Your task to perform on an android device: View the shopping cart on ebay.com. Search for dell alienware on ebay.com, select the first entry, add it to the cart, then select checkout. Image 0: 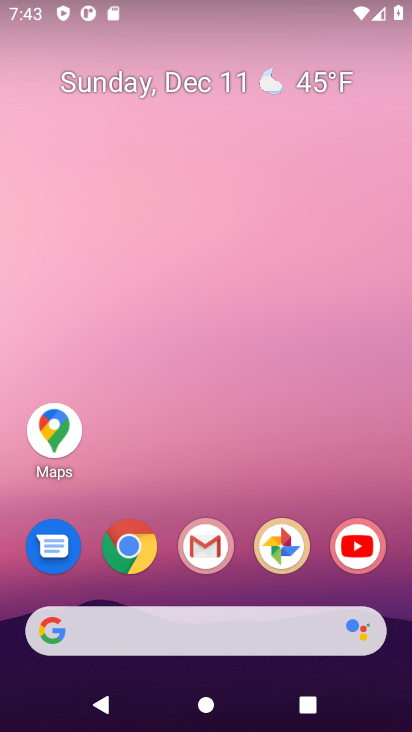
Step 0: click (126, 549)
Your task to perform on an android device: View the shopping cart on ebay.com. Search for dell alienware on ebay.com, select the first entry, add it to the cart, then select checkout. Image 1: 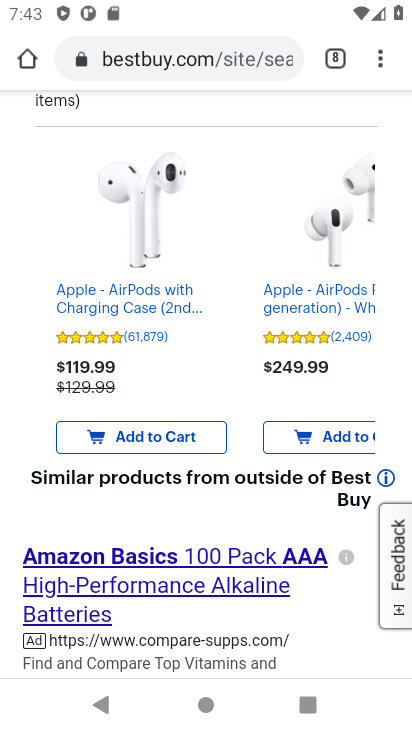
Step 1: click (180, 49)
Your task to perform on an android device: View the shopping cart on ebay.com. Search for dell alienware on ebay.com, select the first entry, add it to the cart, then select checkout. Image 2: 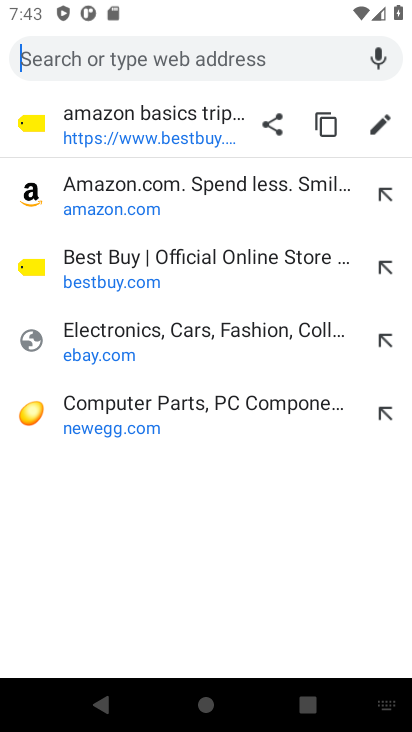
Step 2: click (102, 346)
Your task to perform on an android device: View the shopping cart on ebay.com. Search for dell alienware on ebay.com, select the first entry, add it to the cart, then select checkout. Image 3: 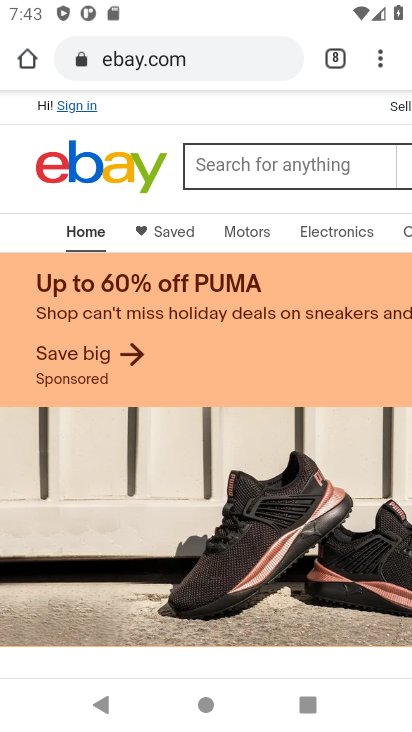
Step 3: drag from (301, 135) to (93, 126)
Your task to perform on an android device: View the shopping cart on ebay.com. Search for dell alienware on ebay.com, select the first entry, add it to the cart, then select checkout. Image 4: 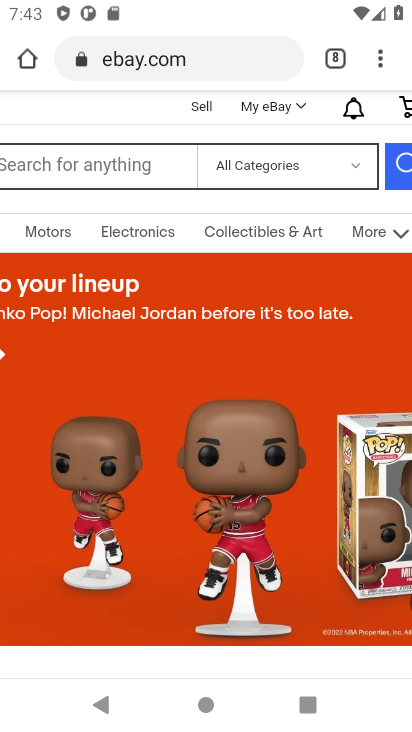
Step 4: click (410, 107)
Your task to perform on an android device: View the shopping cart on ebay.com. Search for dell alienware on ebay.com, select the first entry, add it to the cart, then select checkout. Image 5: 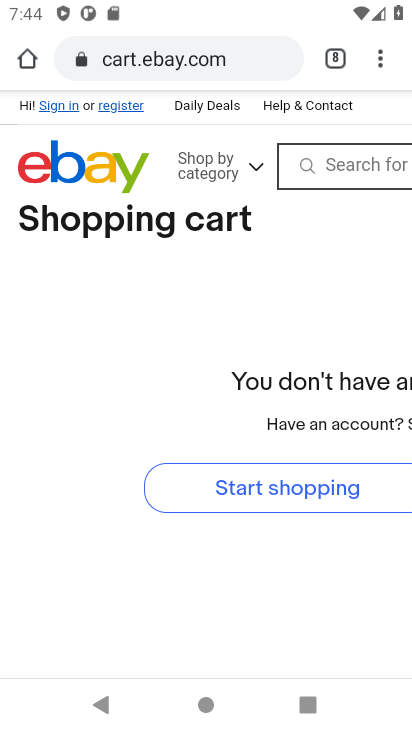
Step 5: click (378, 173)
Your task to perform on an android device: View the shopping cart on ebay.com. Search for dell alienware on ebay.com, select the first entry, add it to the cart, then select checkout. Image 6: 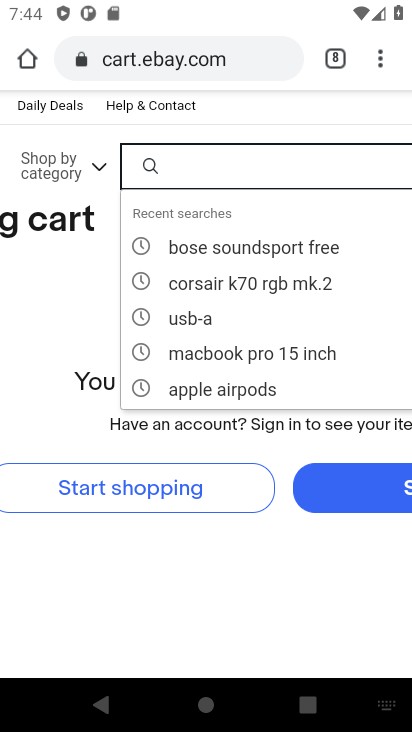
Step 6: type "dell alienware"
Your task to perform on an android device: View the shopping cart on ebay.com. Search for dell alienware on ebay.com, select the first entry, add it to the cart, then select checkout. Image 7: 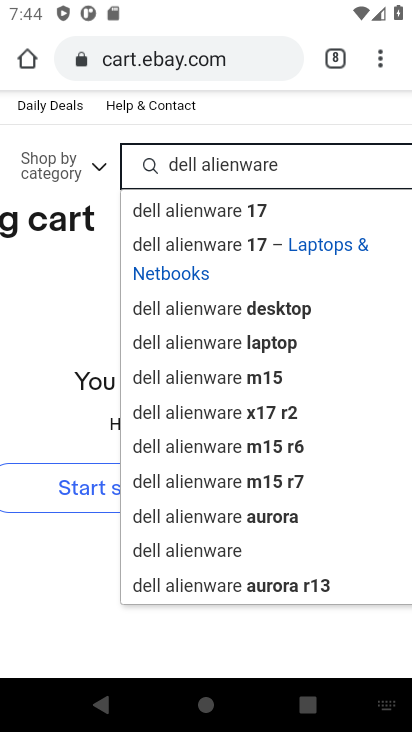
Step 7: click (213, 562)
Your task to perform on an android device: View the shopping cart on ebay.com. Search for dell alienware on ebay.com, select the first entry, add it to the cart, then select checkout. Image 8: 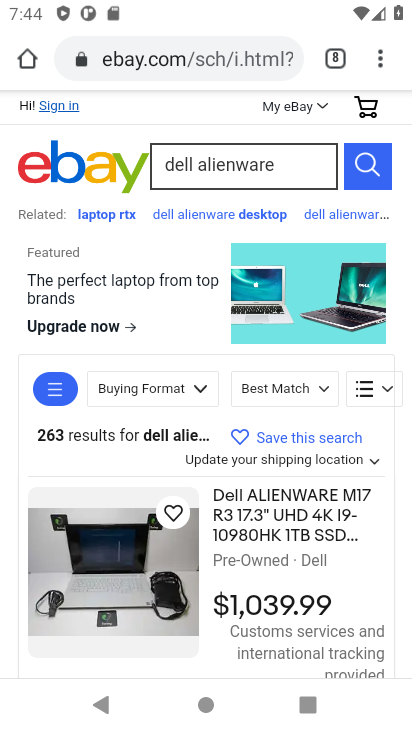
Step 8: drag from (213, 562) to (210, 299)
Your task to perform on an android device: View the shopping cart on ebay.com. Search for dell alienware on ebay.com, select the first entry, add it to the cart, then select checkout. Image 9: 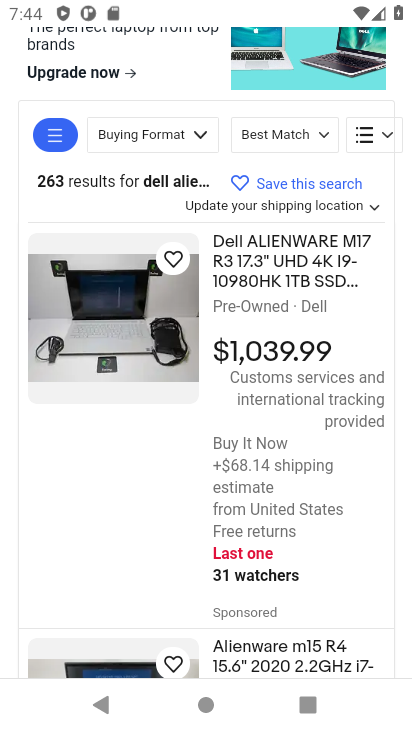
Step 9: click (278, 272)
Your task to perform on an android device: View the shopping cart on ebay.com. Search for dell alienware on ebay.com, select the first entry, add it to the cart, then select checkout. Image 10: 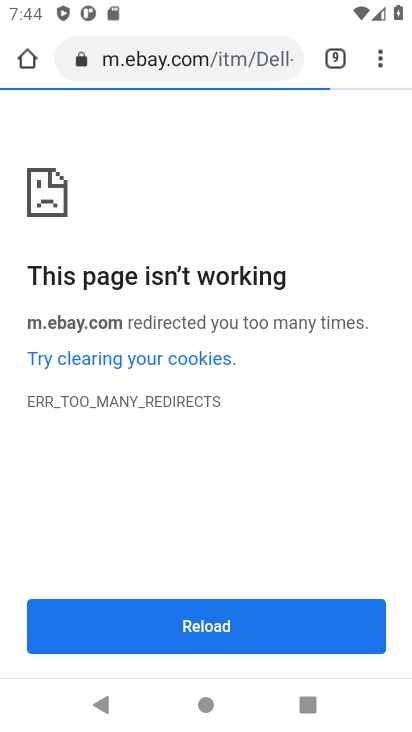
Step 10: task complete